Your task to perform on an android device: turn smart compose on in the gmail app Image 0: 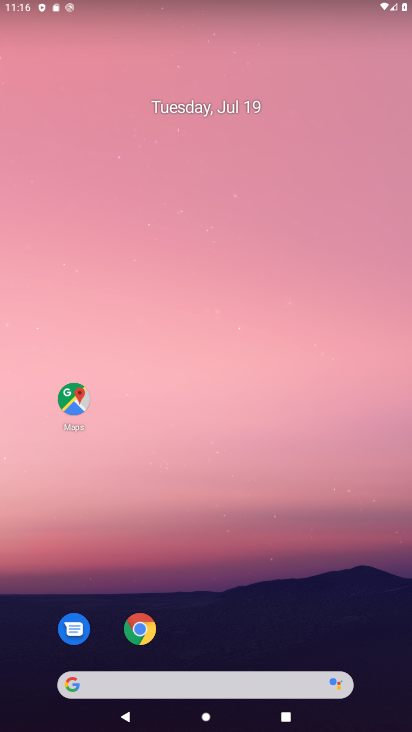
Step 0: drag from (348, 638) to (401, 96)
Your task to perform on an android device: turn smart compose on in the gmail app Image 1: 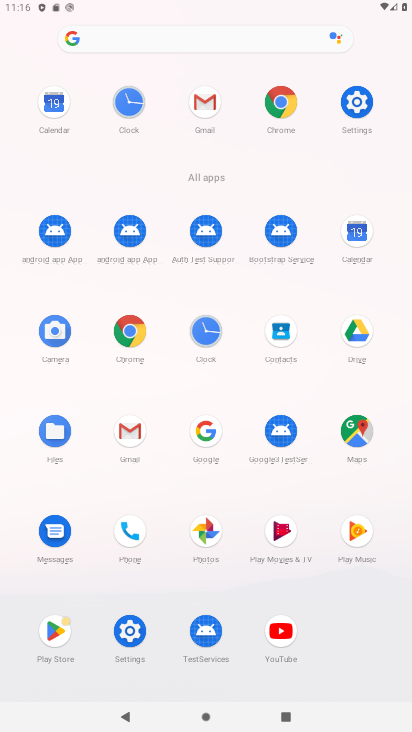
Step 1: click (123, 433)
Your task to perform on an android device: turn smart compose on in the gmail app Image 2: 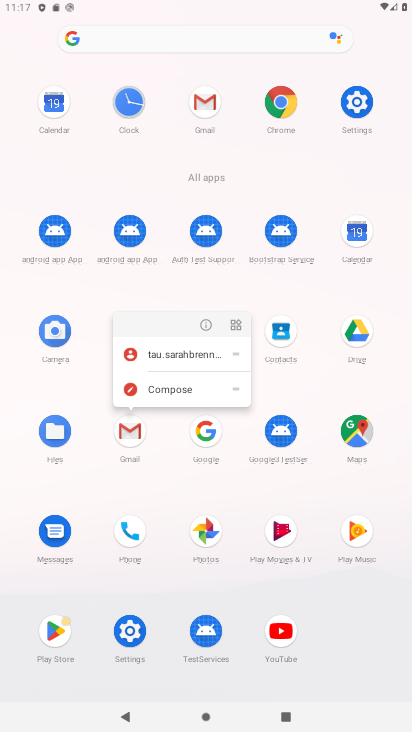
Step 2: click (132, 427)
Your task to perform on an android device: turn smart compose on in the gmail app Image 3: 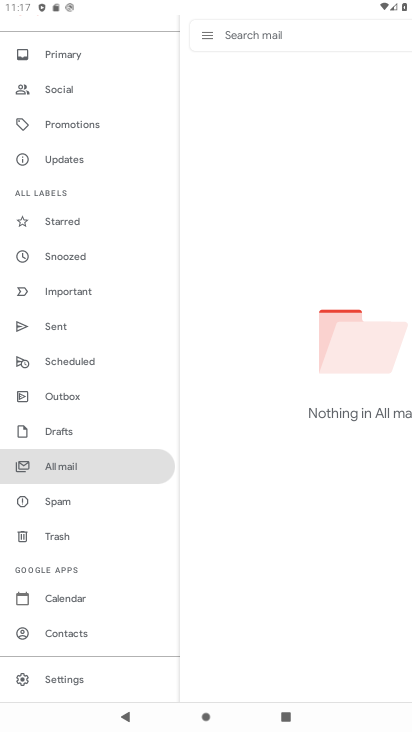
Step 3: click (67, 666)
Your task to perform on an android device: turn smart compose on in the gmail app Image 4: 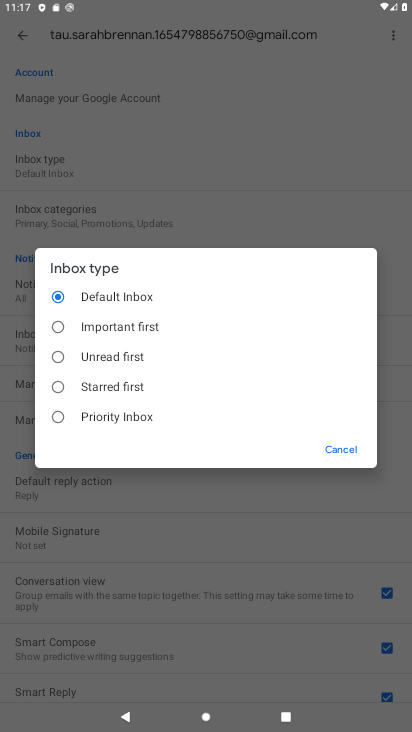
Step 4: click (343, 457)
Your task to perform on an android device: turn smart compose on in the gmail app Image 5: 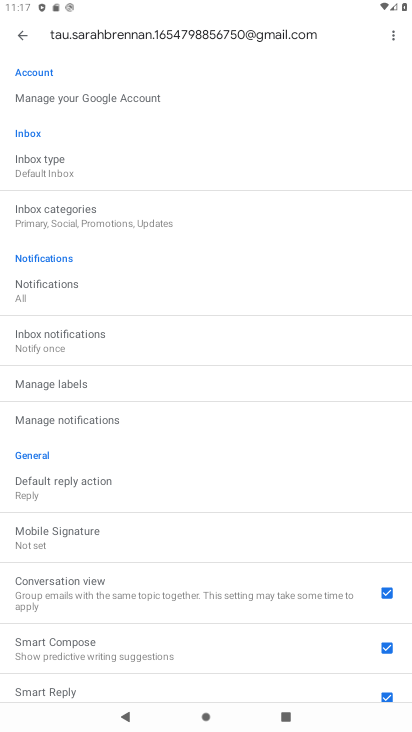
Step 5: task complete